Your task to perform on an android device: turn on priority inbox in the gmail app Image 0: 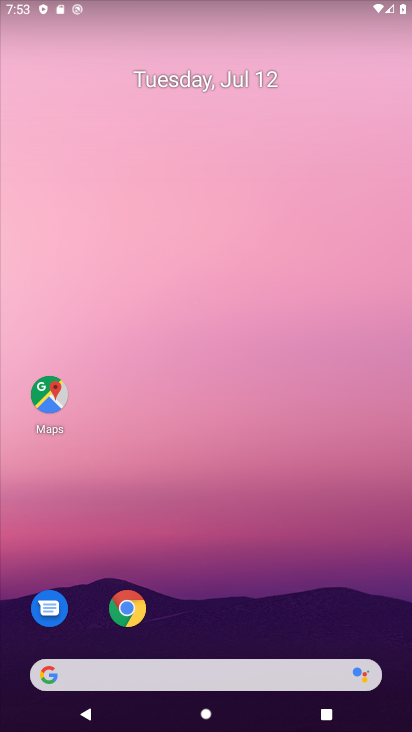
Step 0: drag from (237, 674) to (367, 103)
Your task to perform on an android device: turn on priority inbox in the gmail app Image 1: 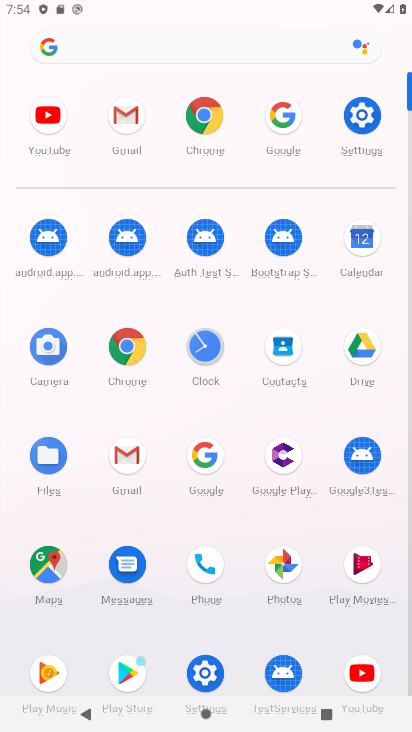
Step 1: click (122, 116)
Your task to perform on an android device: turn on priority inbox in the gmail app Image 2: 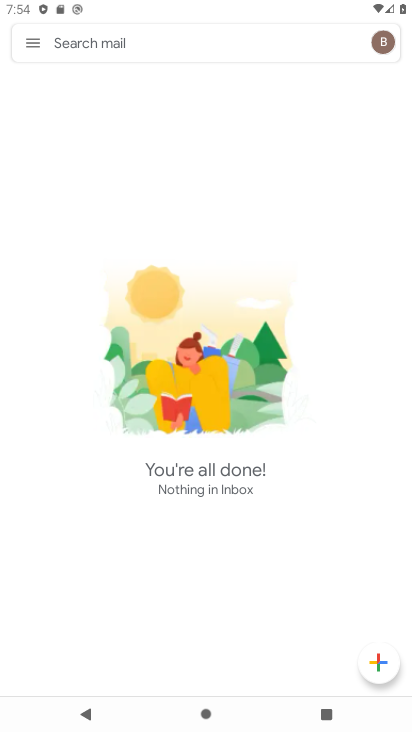
Step 2: click (33, 40)
Your task to perform on an android device: turn on priority inbox in the gmail app Image 3: 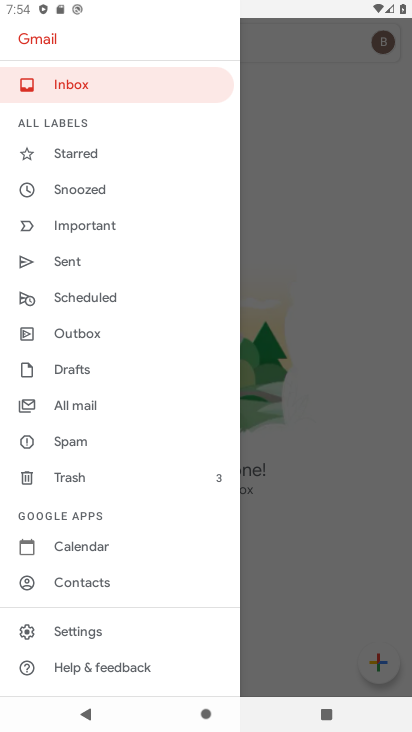
Step 3: click (84, 635)
Your task to perform on an android device: turn on priority inbox in the gmail app Image 4: 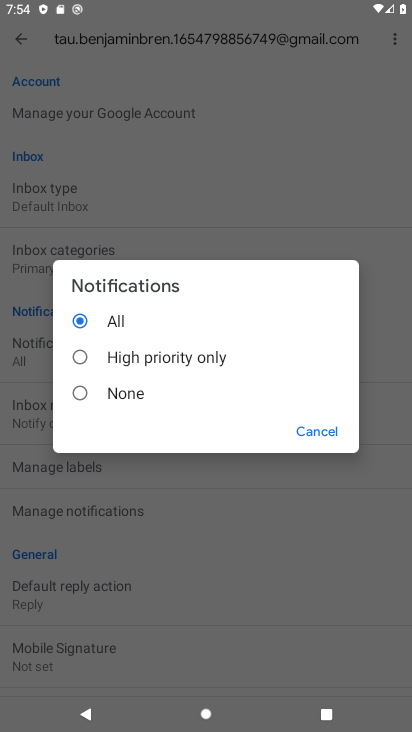
Step 4: click (324, 432)
Your task to perform on an android device: turn on priority inbox in the gmail app Image 5: 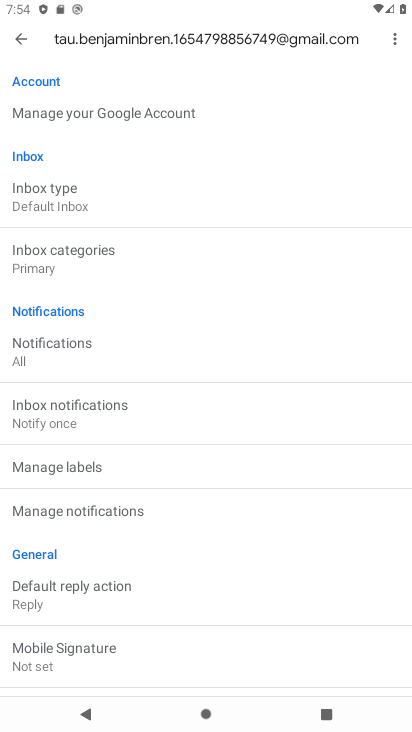
Step 5: click (66, 211)
Your task to perform on an android device: turn on priority inbox in the gmail app Image 6: 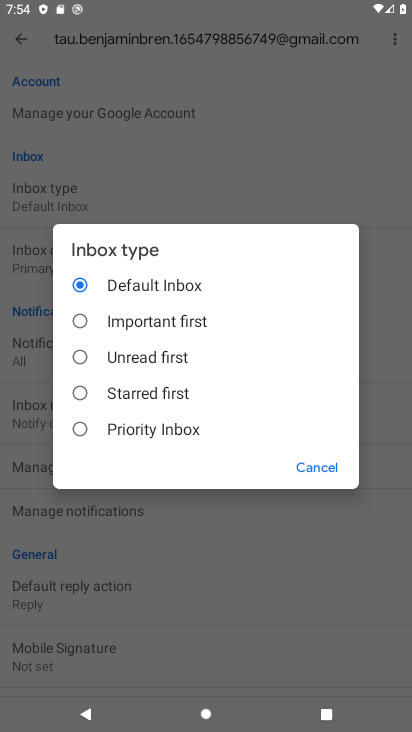
Step 6: click (76, 429)
Your task to perform on an android device: turn on priority inbox in the gmail app Image 7: 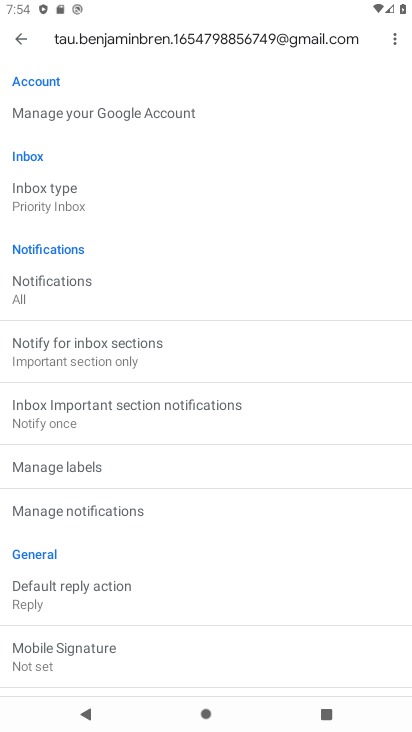
Step 7: task complete